Your task to perform on an android device: manage bookmarks in the chrome app Image 0: 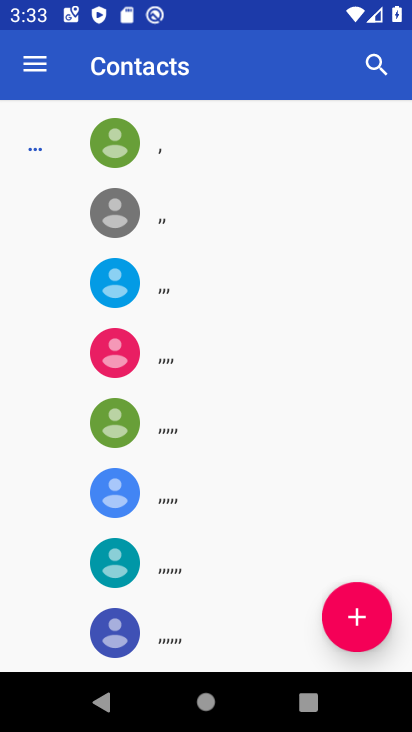
Step 0: press home button
Your task to perform on an android device: manage bookmarks in the chrome app Image 1: 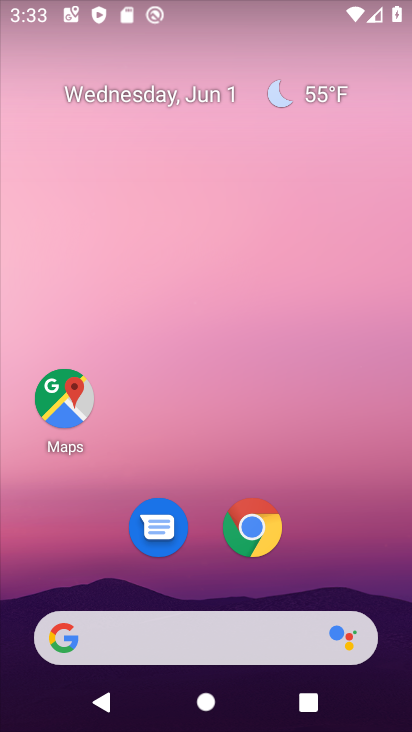
Step 1: click (240, 531)
Your task to perform on an android device: manage bookmarks in the chrome app Image 2: 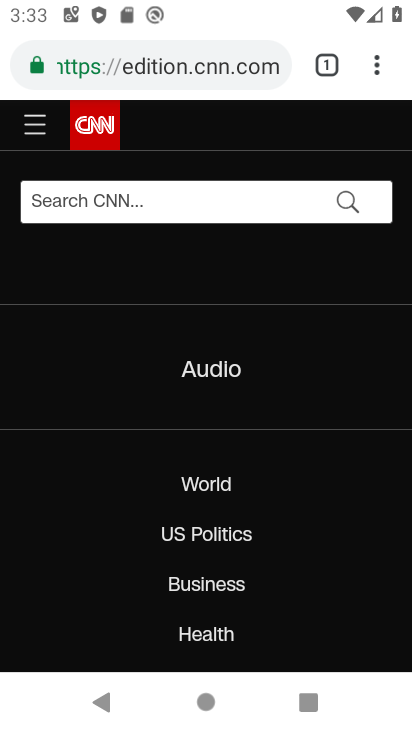
Step 2: task complete